Your task to perform on an android device: Go to notification settings Image 0: 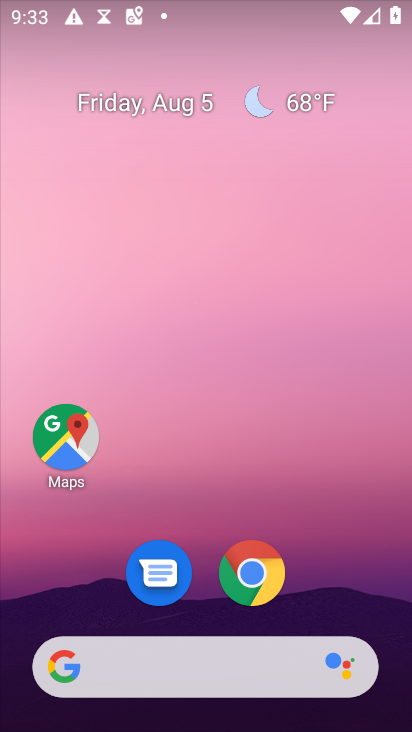
Step 0: drag from (209, 669) to (207, 230)
Your task to perform on an android device: Go to notification settings Image 1: 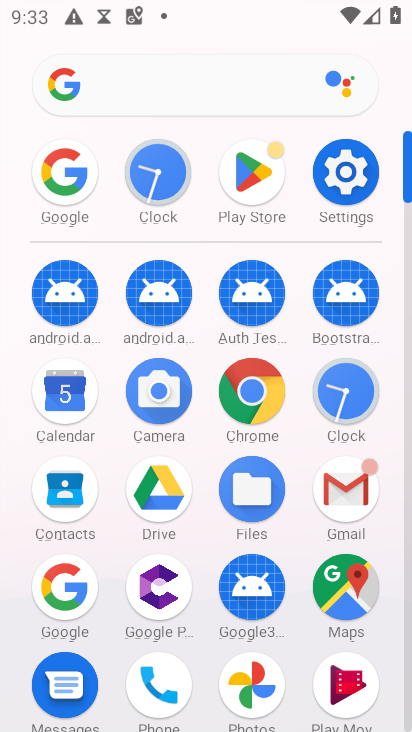
Step 1: click (345, 171)
Your task to perform on an android device: Go to notification settings Image 2: 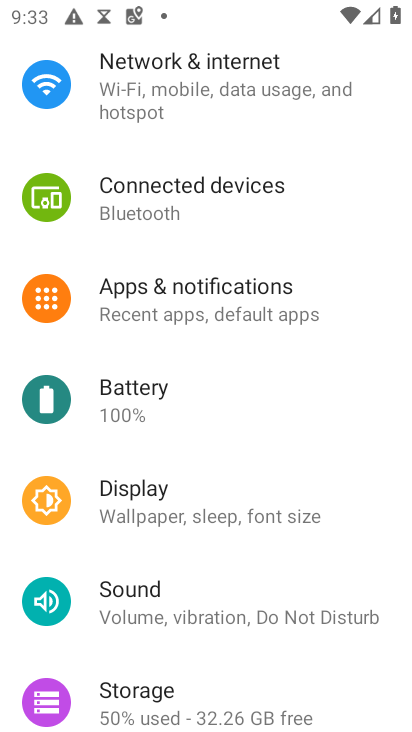
Step 2: click (209, 311)
Your task to perform on an android device: Go to notification settings Image 3: 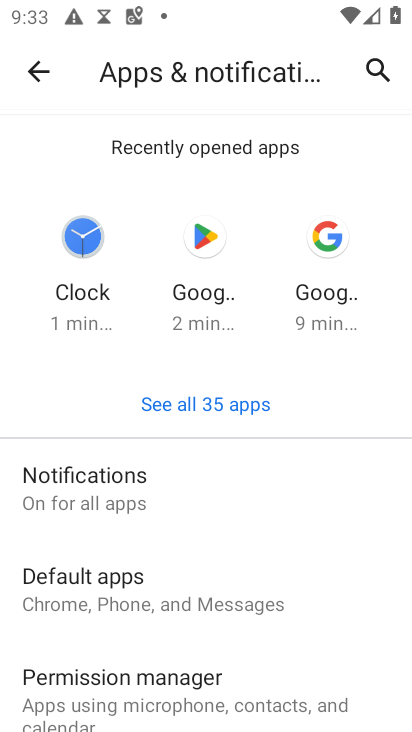
Step 3: click (128, 481)
Your task to perform on an android device: Go to notification settings Image 4: 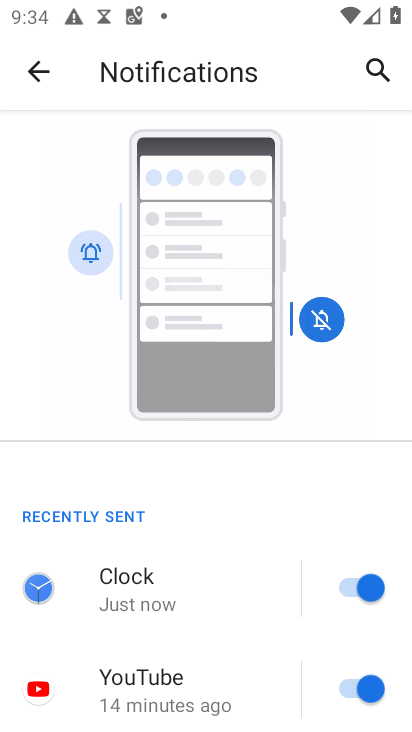
Step 4: task complete